Your task to perform on an android device: turn off location history Image 0: 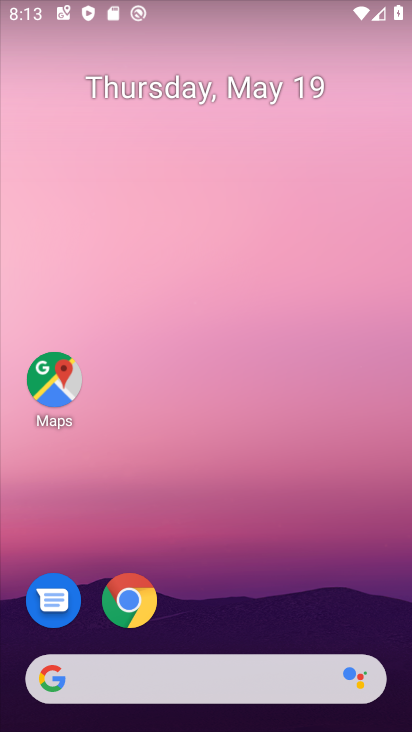
Step 0: click (57, 395)
Your task to perform on an android device: turn off location history Image 1: 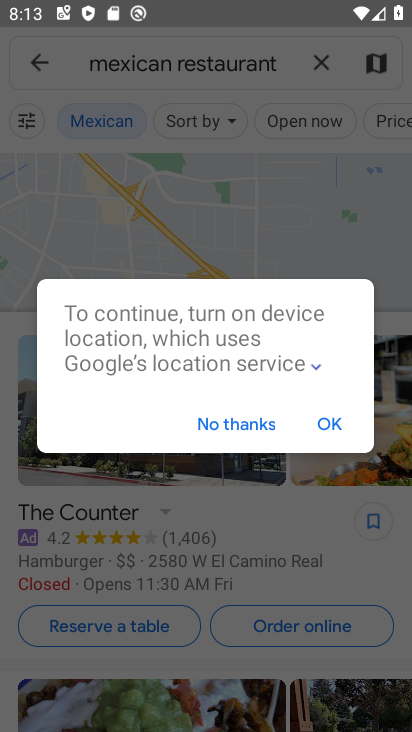
Step 1: click (217, 427)
Your task to perform on an android device: turn off location history Image 2: 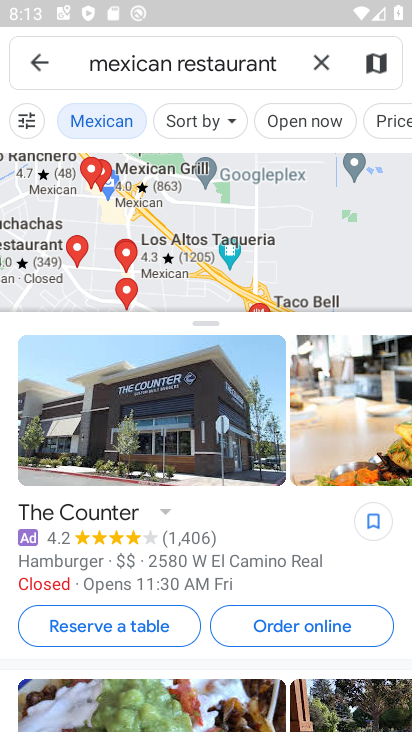
Step 2: click (322, 73)
Your task to perform on an android device: turn off location history Image 3: 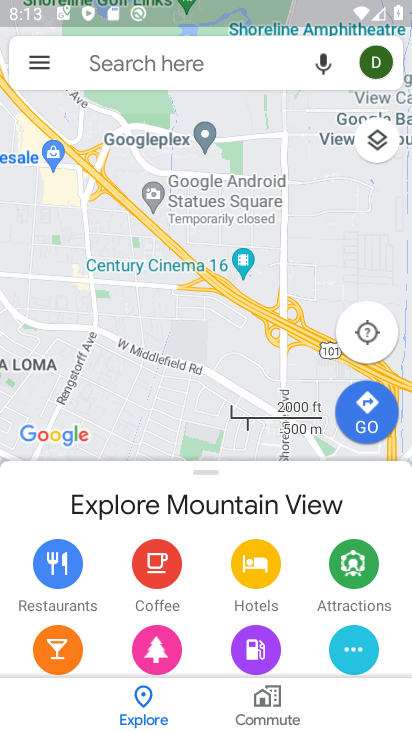
Step 3: click (36, 72)
Your task to perform on an android device: turn off location history Image 4: 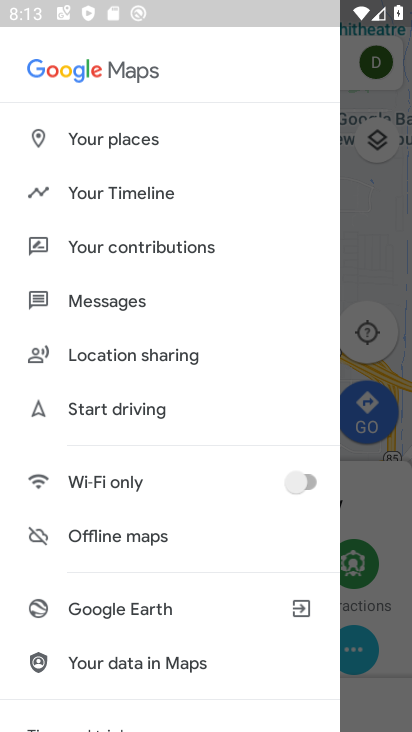
Step 4: click (98, 190)
Your task to perform on an android device: turn off location history Image 5: 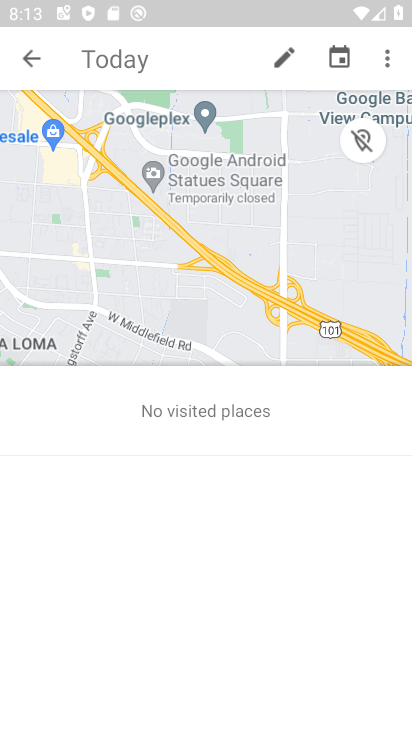
Step 5: click (383, 56)
Your task to perform on an android device: turn off location history Image 6: 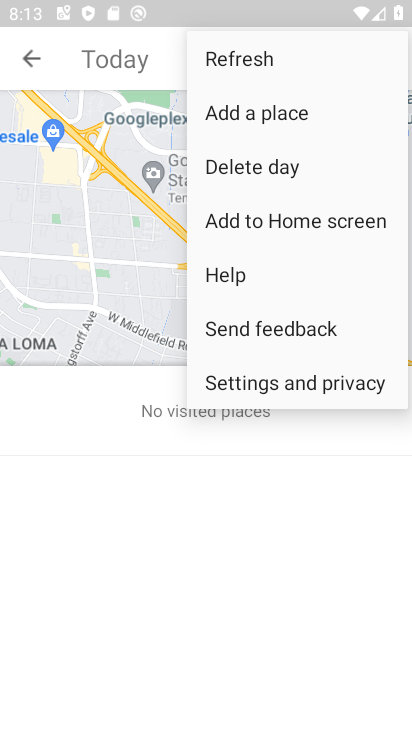
Step 6: click (271, 381)
Your task to perform on an android device: turn off location history Image 7: 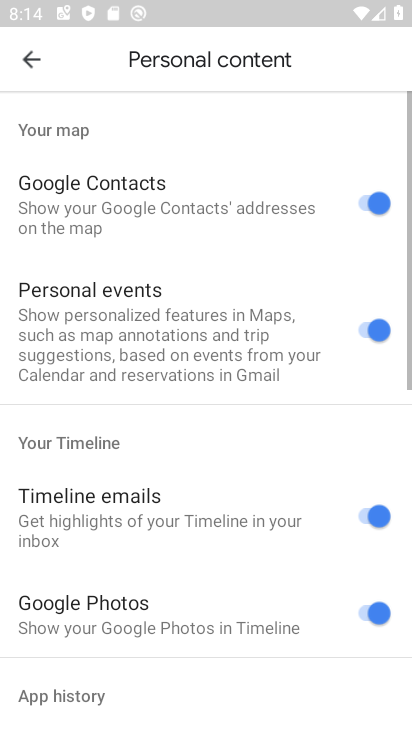
Step 7: drag from (161, 505) to (107, 8)
Your task to perform on an android device: turn off location history Image 8: 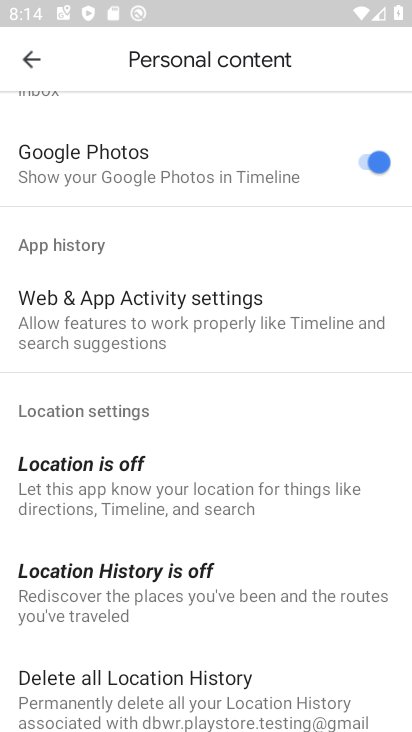
Step 8: click (95, 606)
Your task to perform on an android device: turn off location history Image 9: 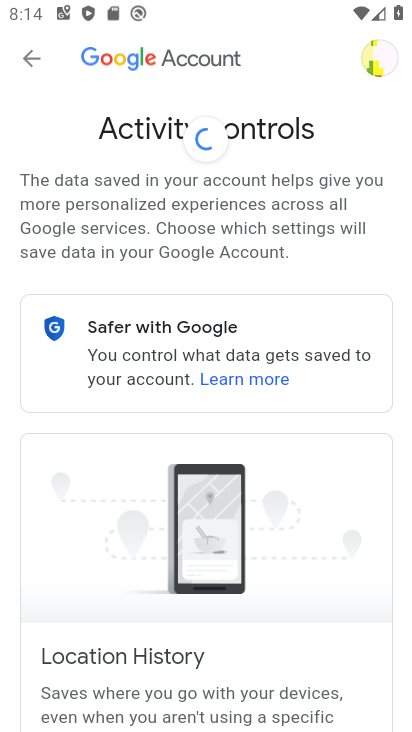
Step 9: task complete